Your task to perform on an android device: refresh tabs in the chrome app Image 0: 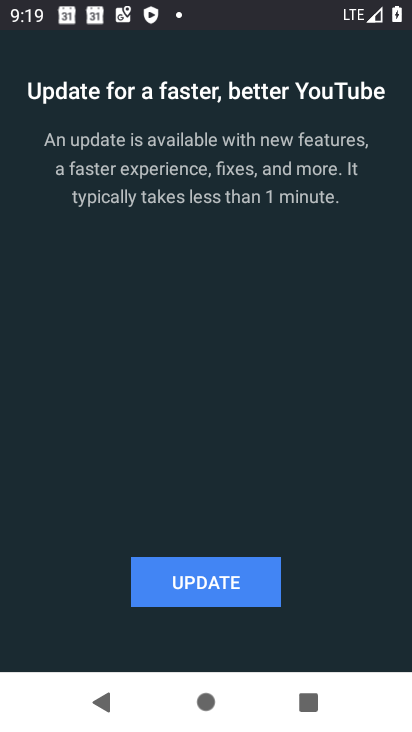
Step 0: press home button
Your task to perform on an android device: refresh tabs in the chrome app Image 1: 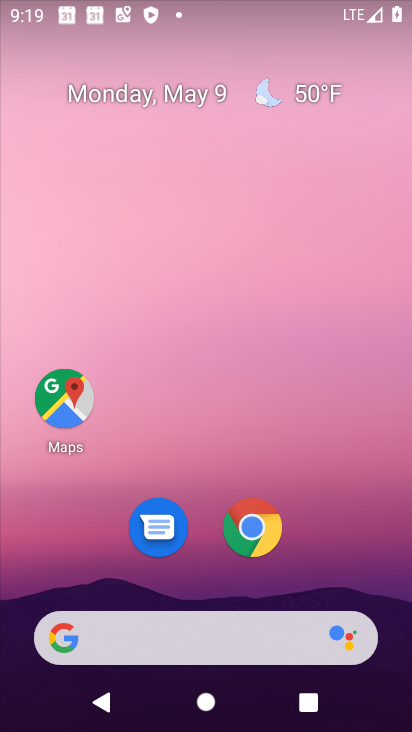
Step 1: click (244, 533)
Your task to perform on an android device: refresh tabs in the chrome app Image 2: 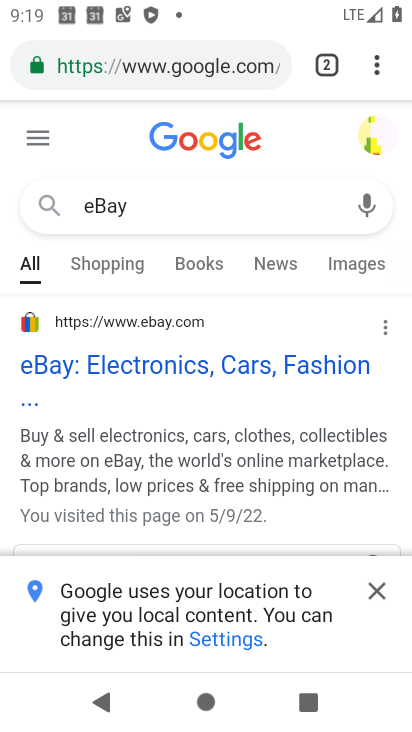
Step 2: click (383, 68)
Your task to perform on an android device: refresh tabs in the chrome app Image 3: 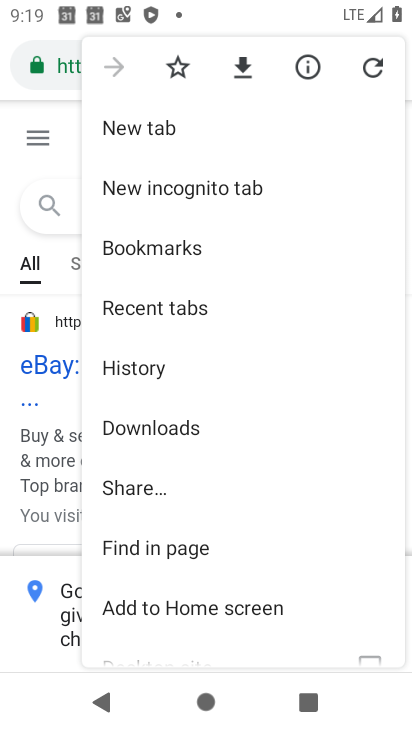
Step 3: click (374, 63)
Your task to perform on an android device: refresh tabs in the chrome app Image 4: 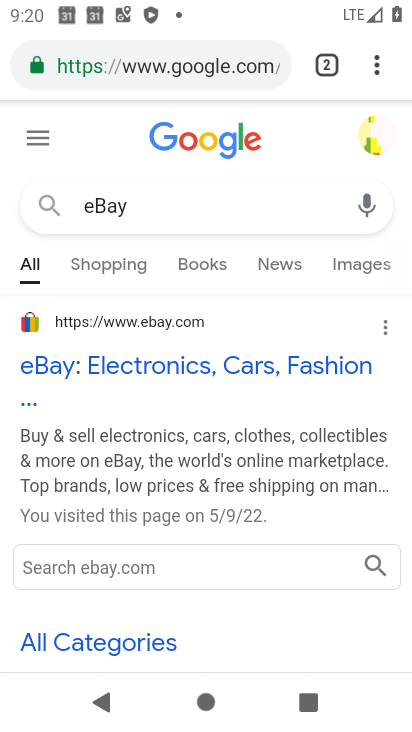
Step 4: task complete